Your task to perform on an android device: Show me recent news Image 0: 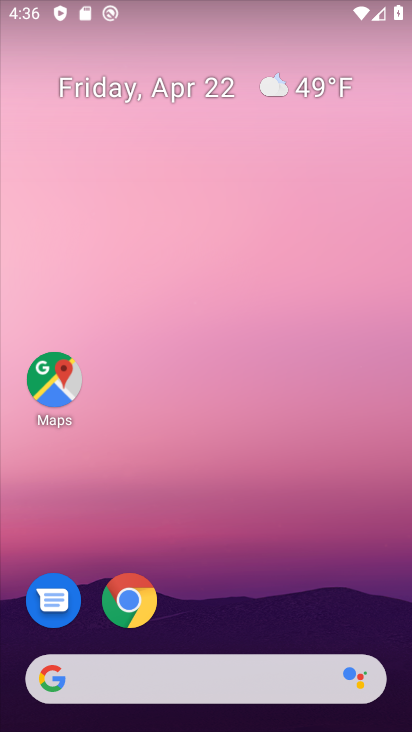
Step 0: drag from (243, 562) to (181, 41)
Your task to perform on an android device: Show me recent news Image 1: 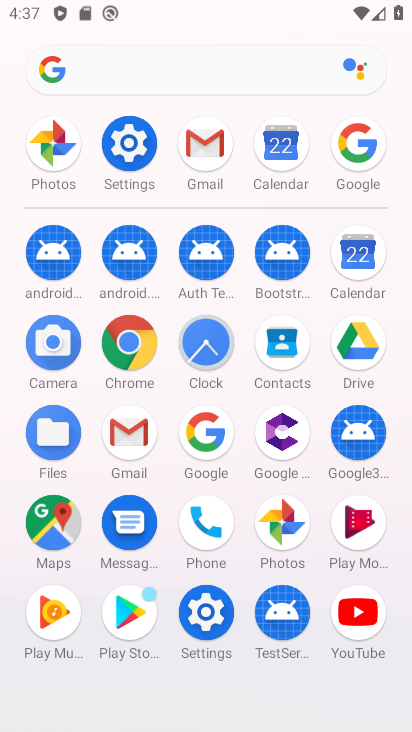
Step 1: click (358, 146)
Your task to perform on an android device: Show me recent news Image 2: 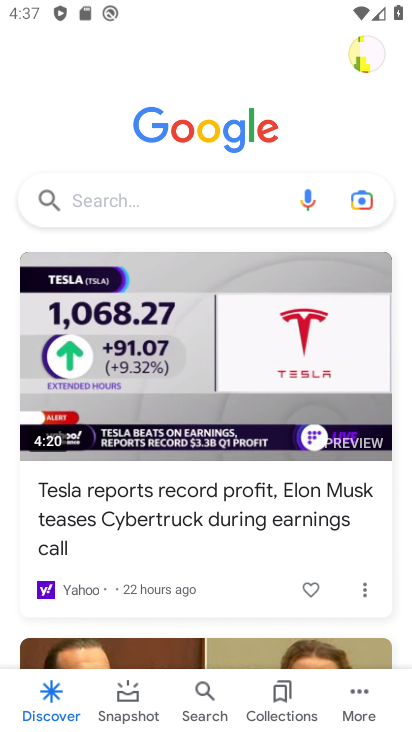
Step 2: click (175, 191)
Your task to perform on an android device: Show me recent news Image 3: 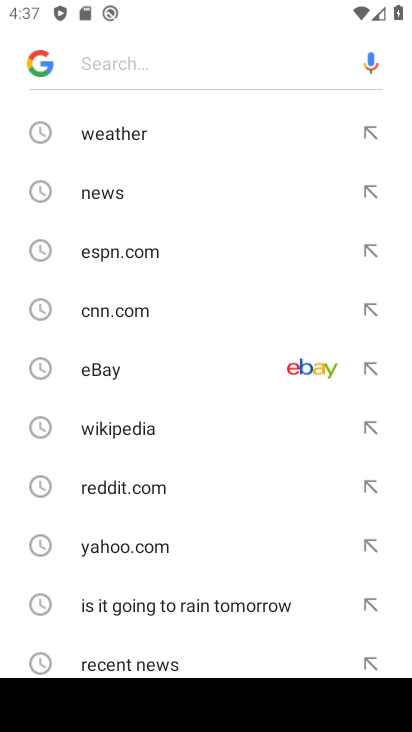
Step 3: click (124, 665)
Your task to perform on an android device: Show me recent news Image 4: 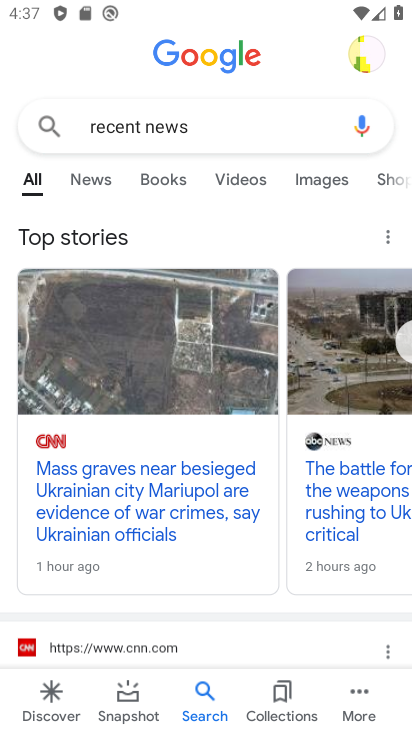
Step 4: task complete